Your task to perform on an android device: Go to privacy settings Image 0: 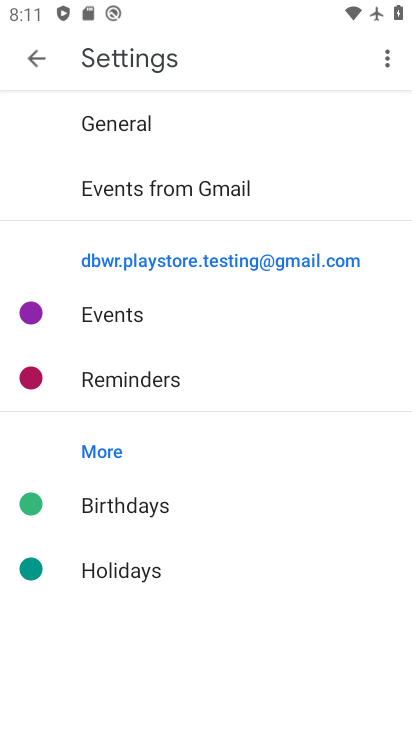
Step 0: press home button
Your task to perform on an android device: Go to privacy settings Image 1: 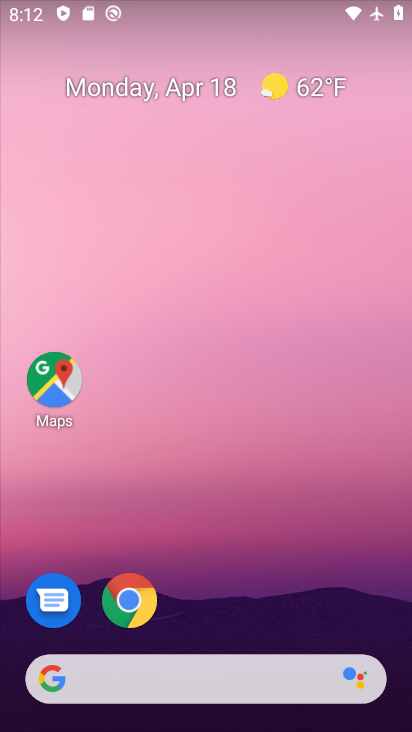
Step 1: drag from (228, 646) to (300, 8)
Your task to perform on an android device: Go to privacy settings Image 2: 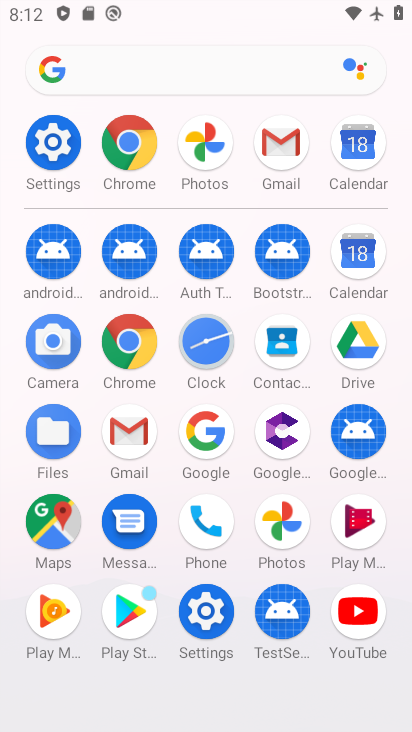
Step 2: click (217, 606)
Your task to perform on an android device: Go to privacy settings Image 3: 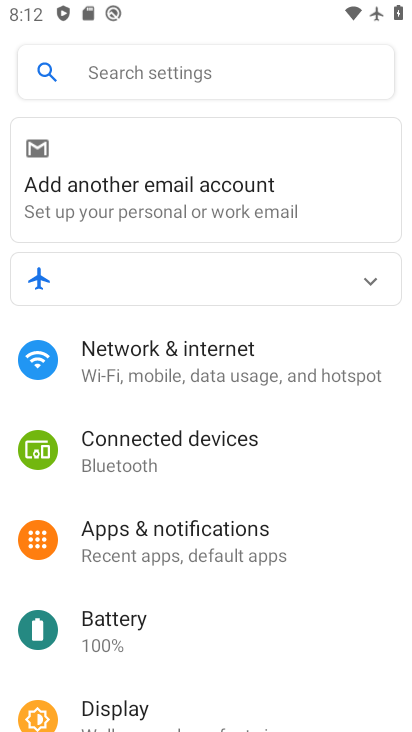
Step 3: drag from (222, 640) to (199, 68)
Your task to perform on an android device: Go to privacy settings Image 4: 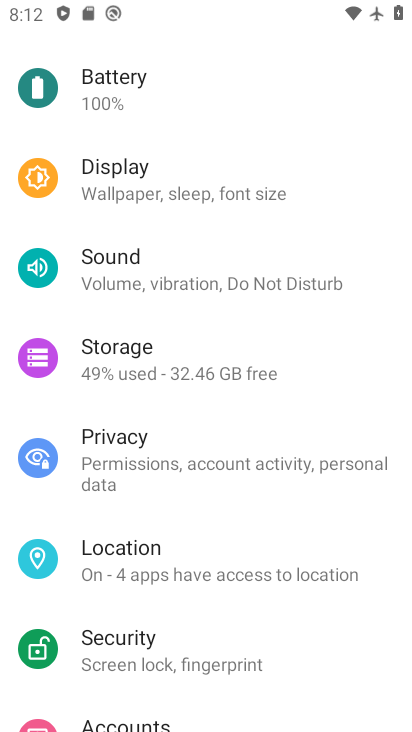
Step 4: click (121, 448)
Your task to perform on an android device: Go to privacy settings Image 5: 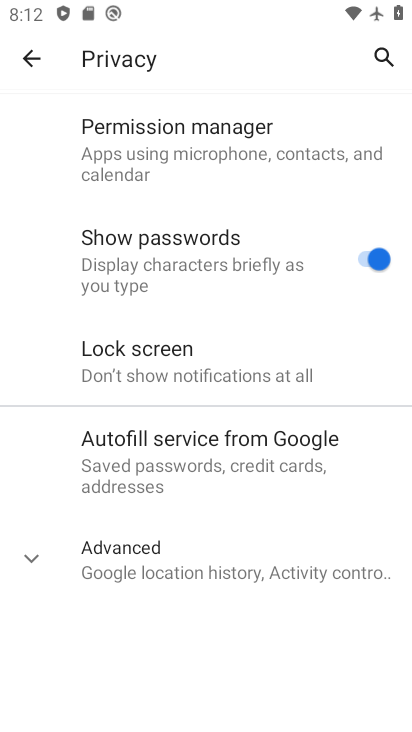
Step 5: task complete